Your task to perform on an android device: Open calendar and show me the third week of next month Image 0: 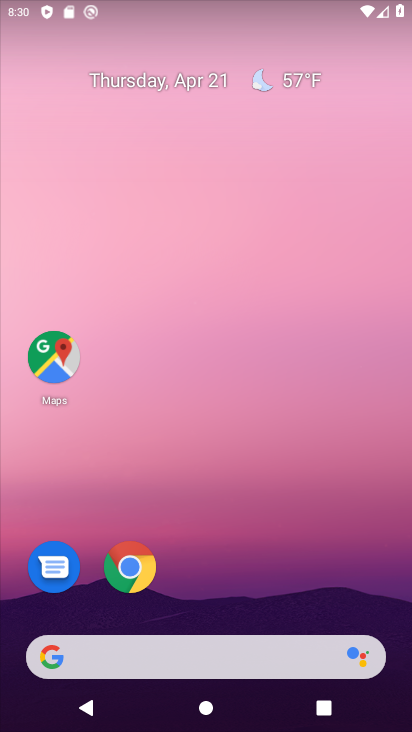
Step 0: drag from (196, 558) to (112, 35)
Your task to perform on an android device: Open calendar and show me the third week of next month Image 1: 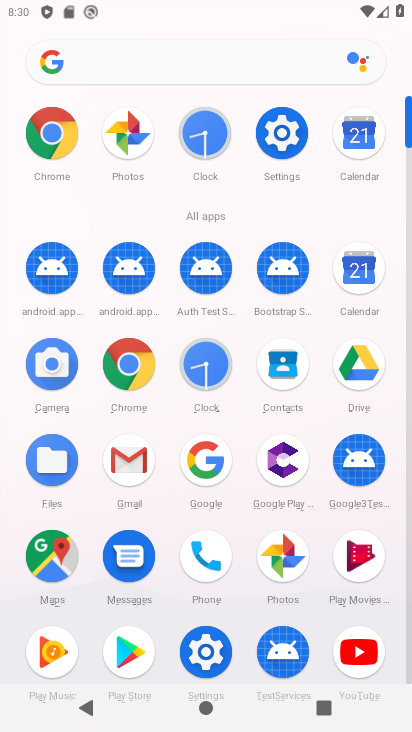
Step 1: click (362, 286)
Your task to perform on an android device: Open calendar and show me the third week of next month Image 2: 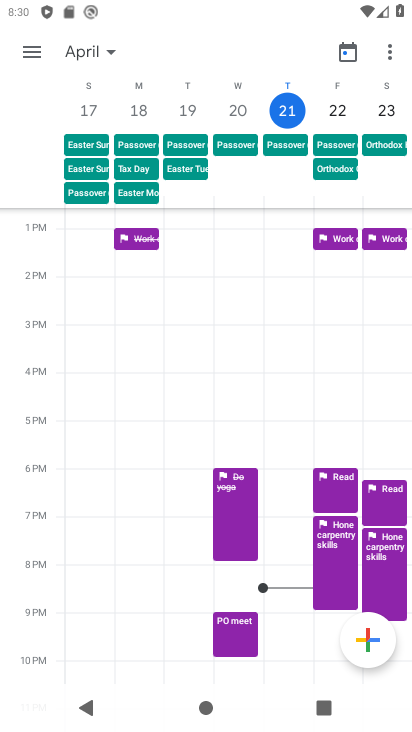
Step 2: click (35, 39)
Your task to perform on an android device: Open calendar and show me the third week of next month Image 3: 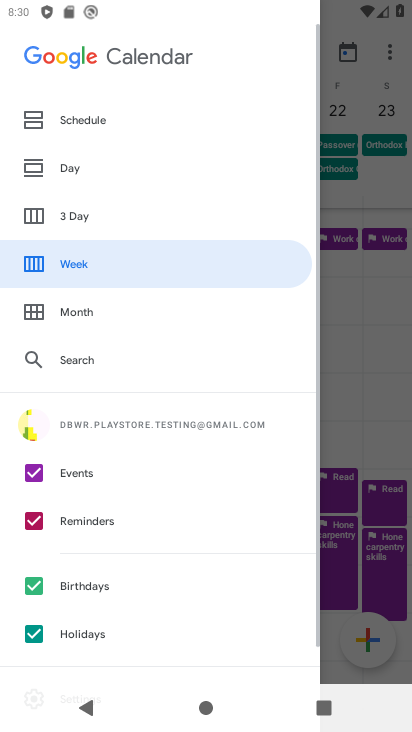
Step 3: click (372, 107)
Your task to perform on an android device: Open calendar and show me the third week of next month Image 4: 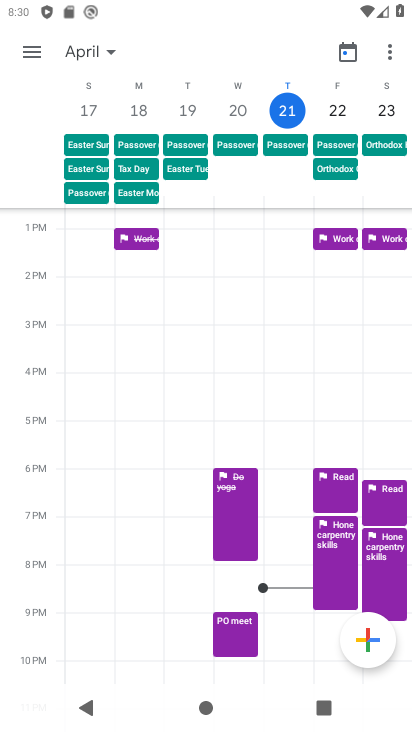
Step 4: task complete